Your task to perform on an android device: turn off picture-in-picture Image 0: 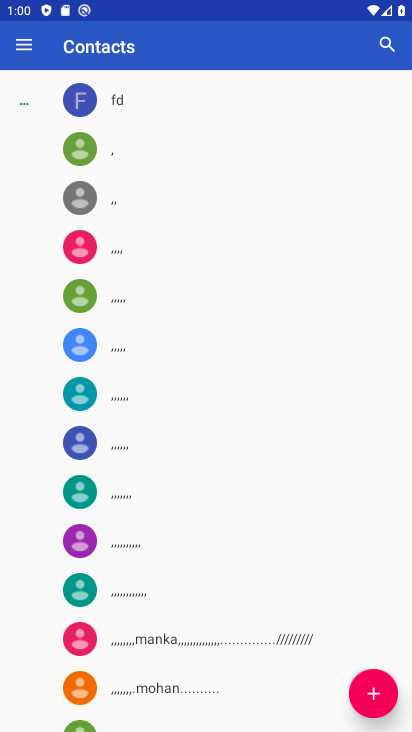
Step 0: press home button
Your task to perform on an android device: turn off picture-in-picture Image 1: 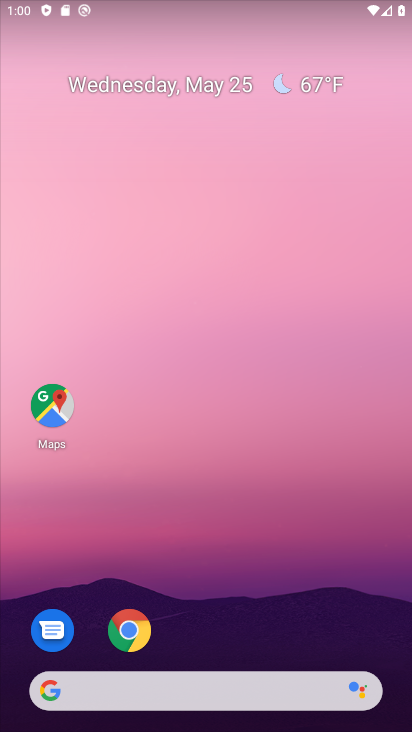
Step 1: click (127, 625)
Your task to perform on an android device: turn off picture-in-picture Image 2: 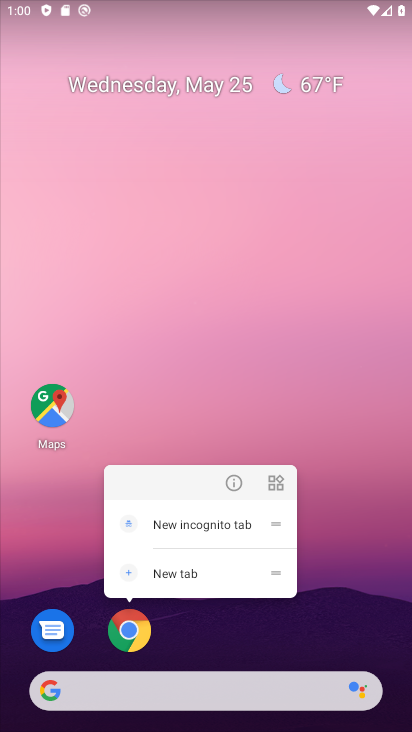
Step 2: click (231, 480)
Your task to perform on an android device: turn off picture-in-picture Image 3: 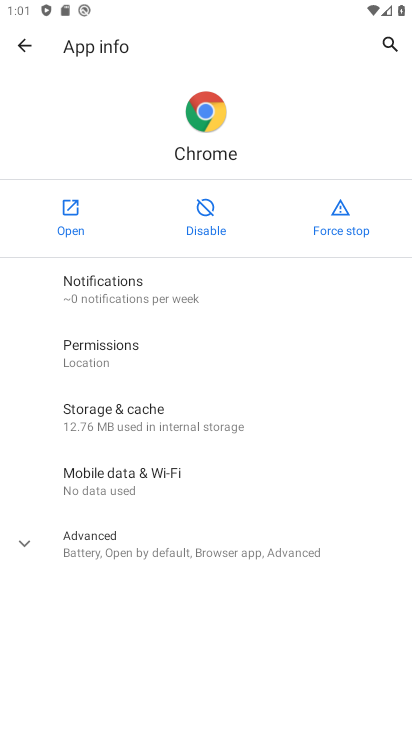
Step 3: click (18, 538)
Your task to perform on an android device: turn off picture-in-picture Image 4: 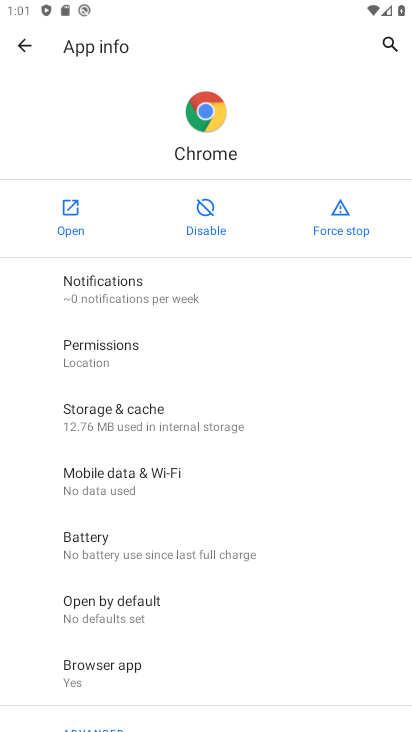
Step 4: drag from (164, 661) to (223, 317)
Your task to perform on an android device: turn off picture-in-picture Image 5: 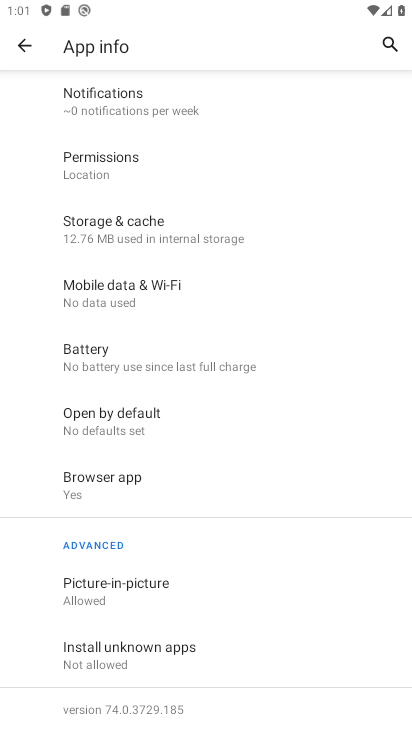
Step 5: click (141, 588)
Your task to perform on an android device: turn off picture-in-picture Image 6: 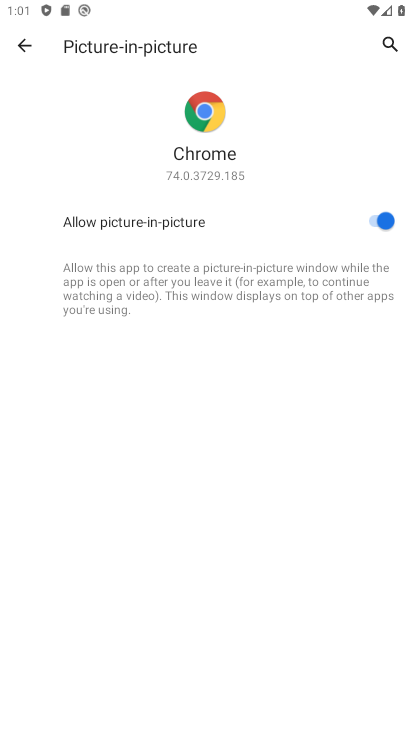
Step 6: click (382, 216)
Your task to perform on an android device: turn off picture-in-picture Image 7: 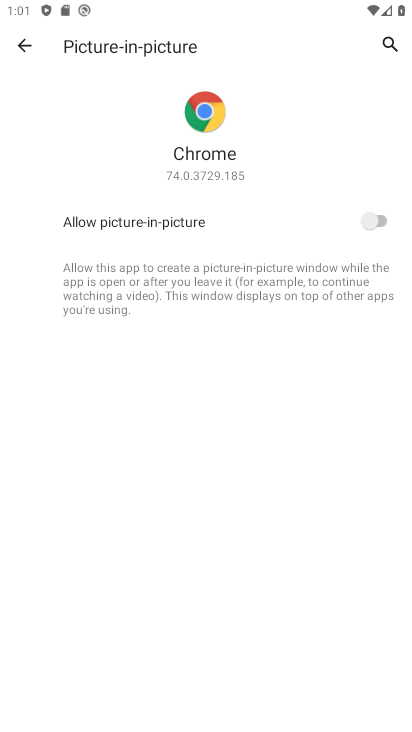
Step 7: task complete